Your task to perform on an android device: check data usage Image 0: 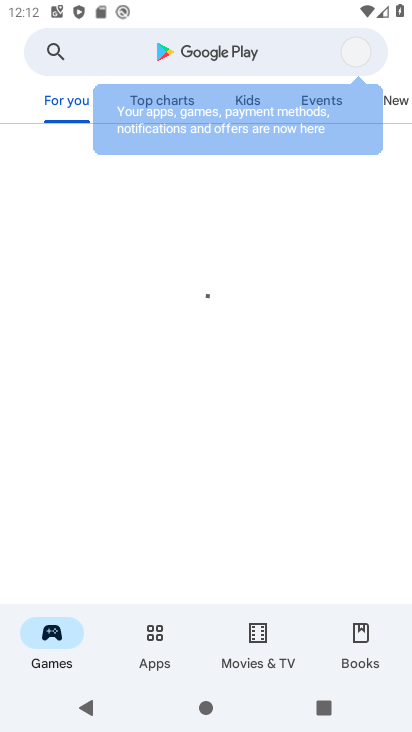
Step 0: drag from (231, 13) to (197, 351)
Your task to perform on an android device: check data usage Image 1: 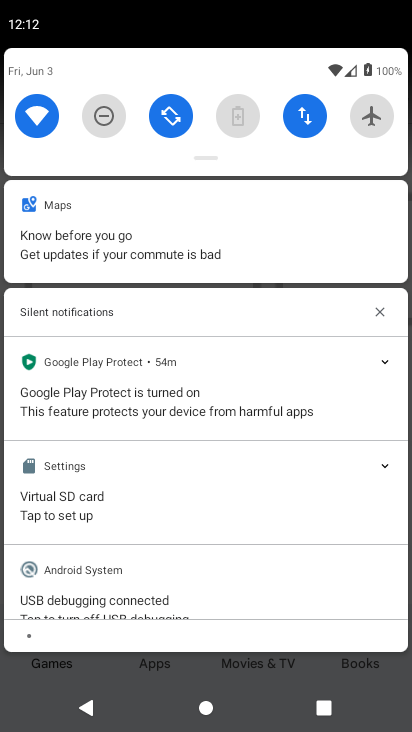
Step 1: click (307, 124)
Your task to perform on an android device: check data usage Image 2: 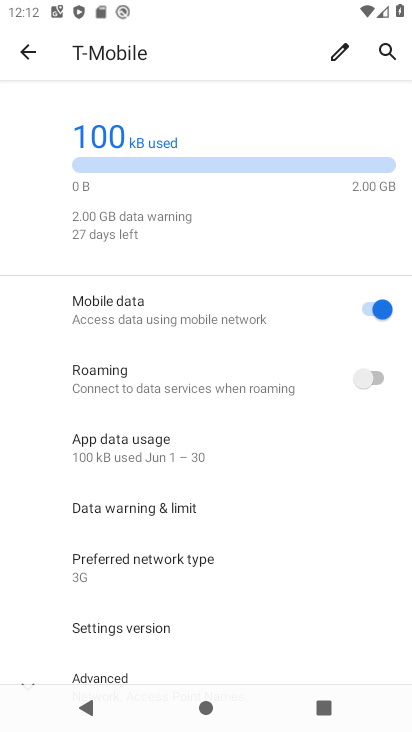
Step 2: task complete